Your task to perform on an android device: toggle javascript in the chrome app Image 0: 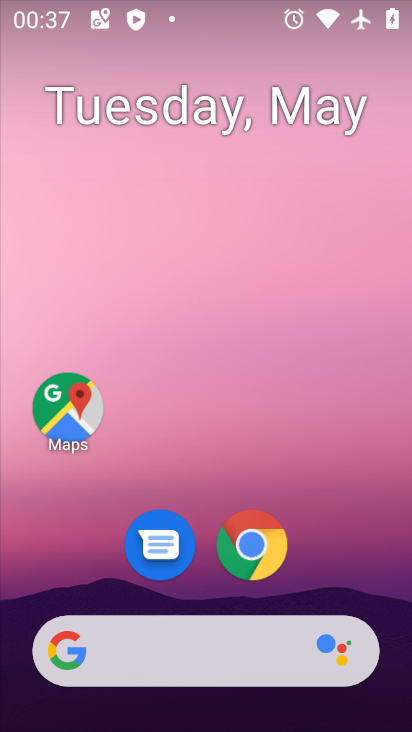
Step 0: drag from (347, 543) to (326, 112)
Your task to perform on an android device: toggle javascript in the chrome app Image 1: 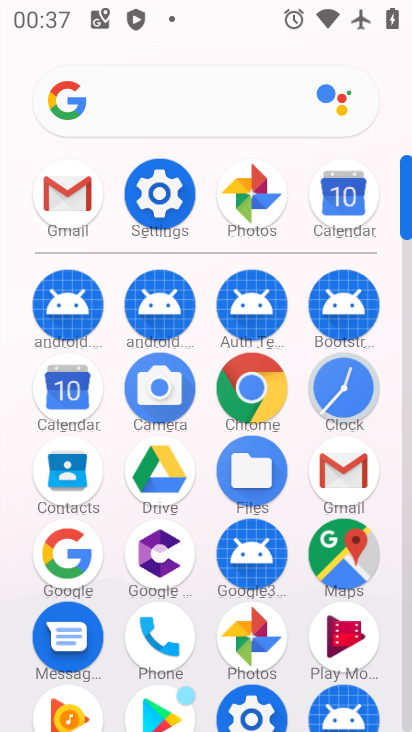
Step 1: click (246, 402)
Your task to perform on an android device: toggle javascript in the chrome app Image 2: 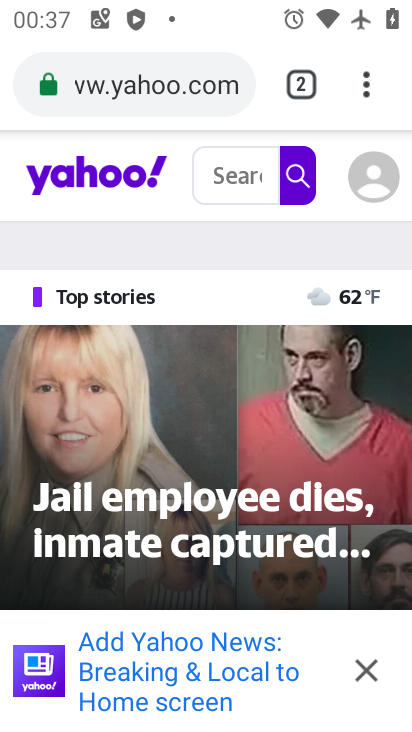
Step 2: click (354, 75)
Your task to perform on an android device: toggle javascript in the chrome app Image 3: 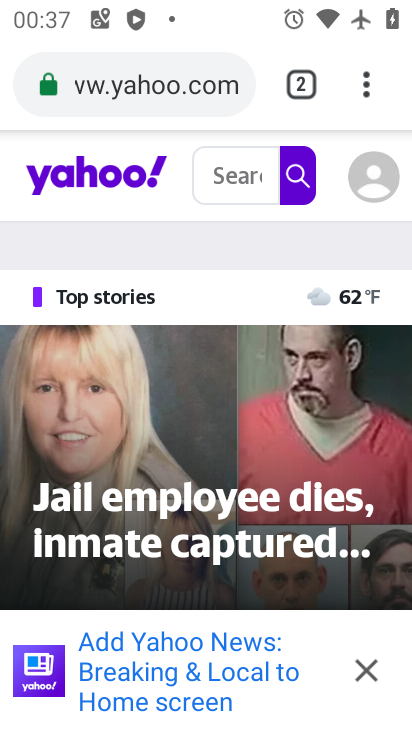
Step 3: click (363, 80)
Your task to perform on an android device: toggle javascript in the chrome app Image 4: 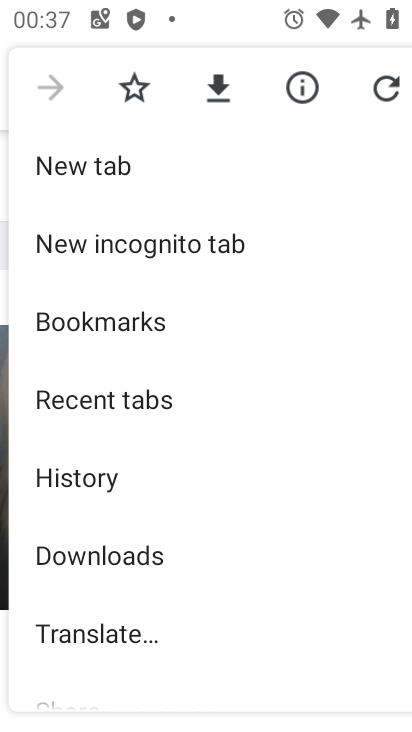
Step 4: drag from (200, 596) to (161, 247)
Your task to perform on an android device: toggle javascript in the chrome app Image 5: 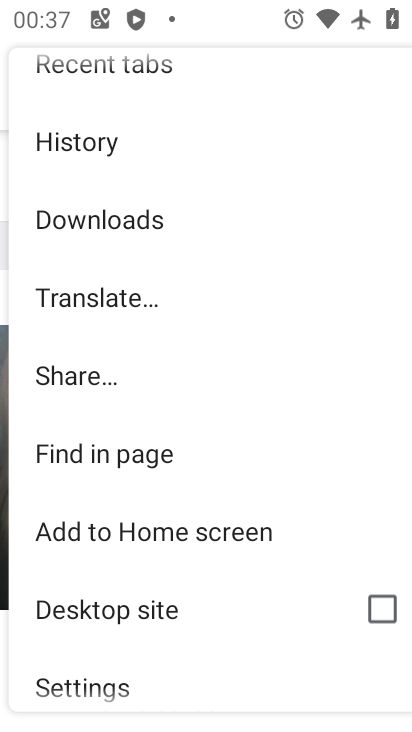
Step 5: click (134, 663)
Your task to perform on an android device: toggle javascript in the chrome app Image 6: 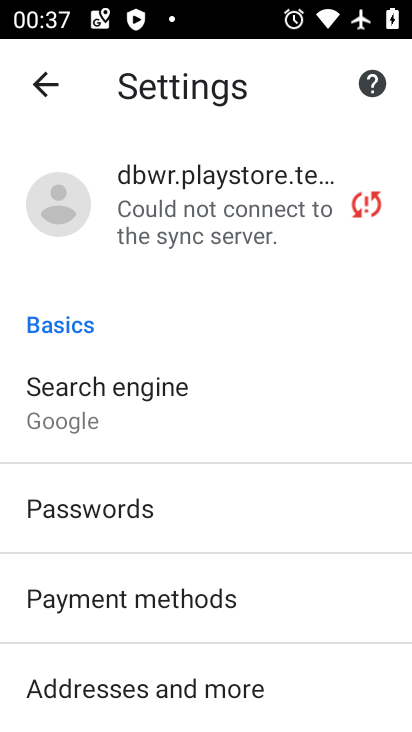
Step 6: drag from (171, 706) to (177, 345)
Your task to perform on an android device: toggle javascript in the chrome app Image 7: 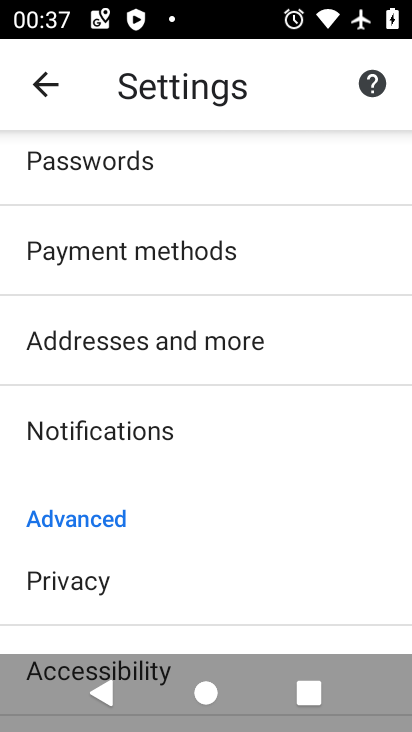
Step 7: drag from (175, 574) to (204, 312)
Your task to perform on an android device: toggle javascript in the chrome app Image 8: 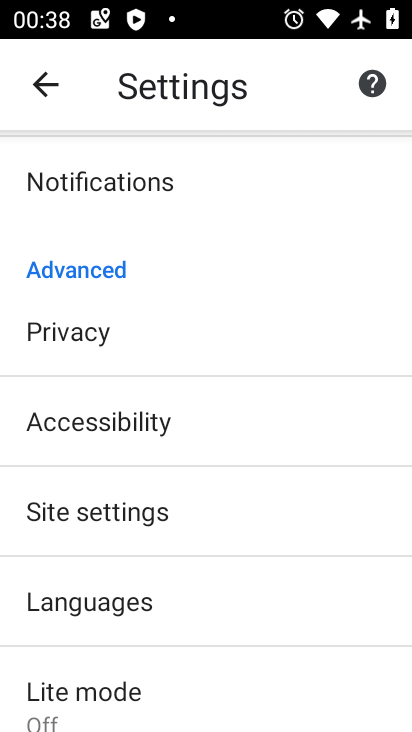
Step 8: click (181, 515)
Your task to perform on an android device: toggle javascript in the chrome app Image 9: 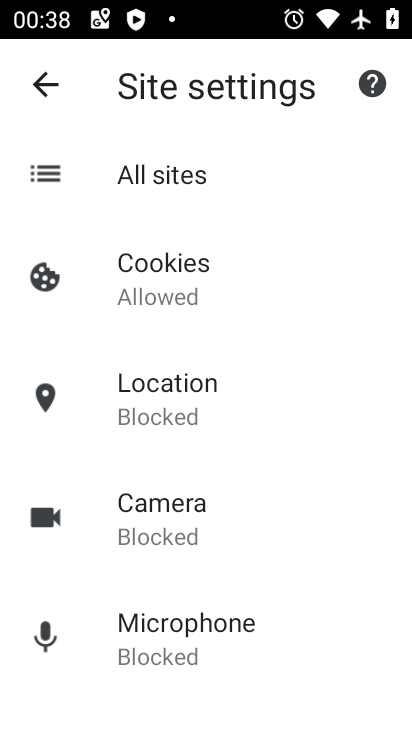
Step 9: drag from (186, 611) to (231, 225)
Your task to perform on an android device: toggle javascript in the chrome app Image 10: 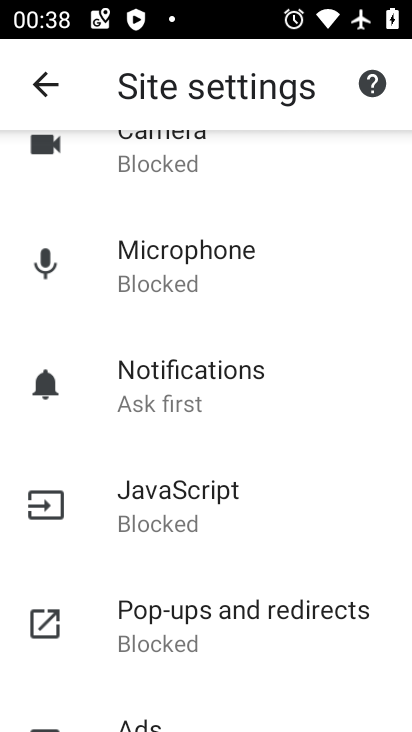
Step 10: click (209, 509)
Your task to perform on an android device: toggle javascript in the chrome app Image 11: 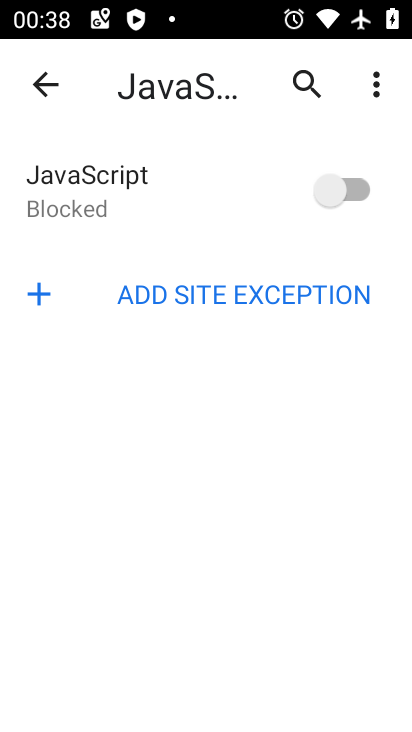
Step 11: click (346, 188)
Your task to perform on an android device: toggle javascript in the chrome app Image 12: 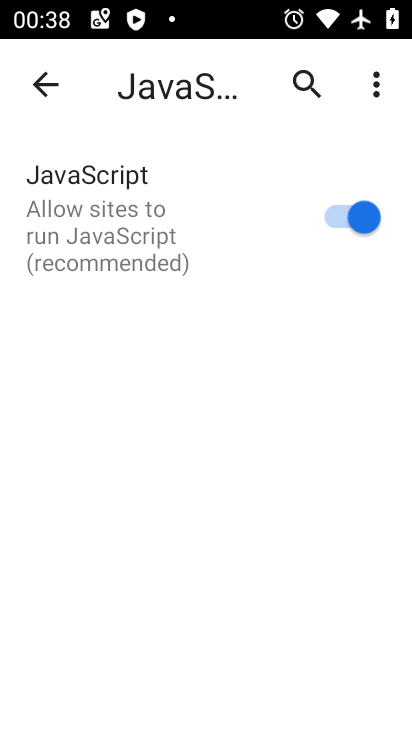
Step 12: task complete